Your task to perform on an android device: toggle airplane mode Image 0: 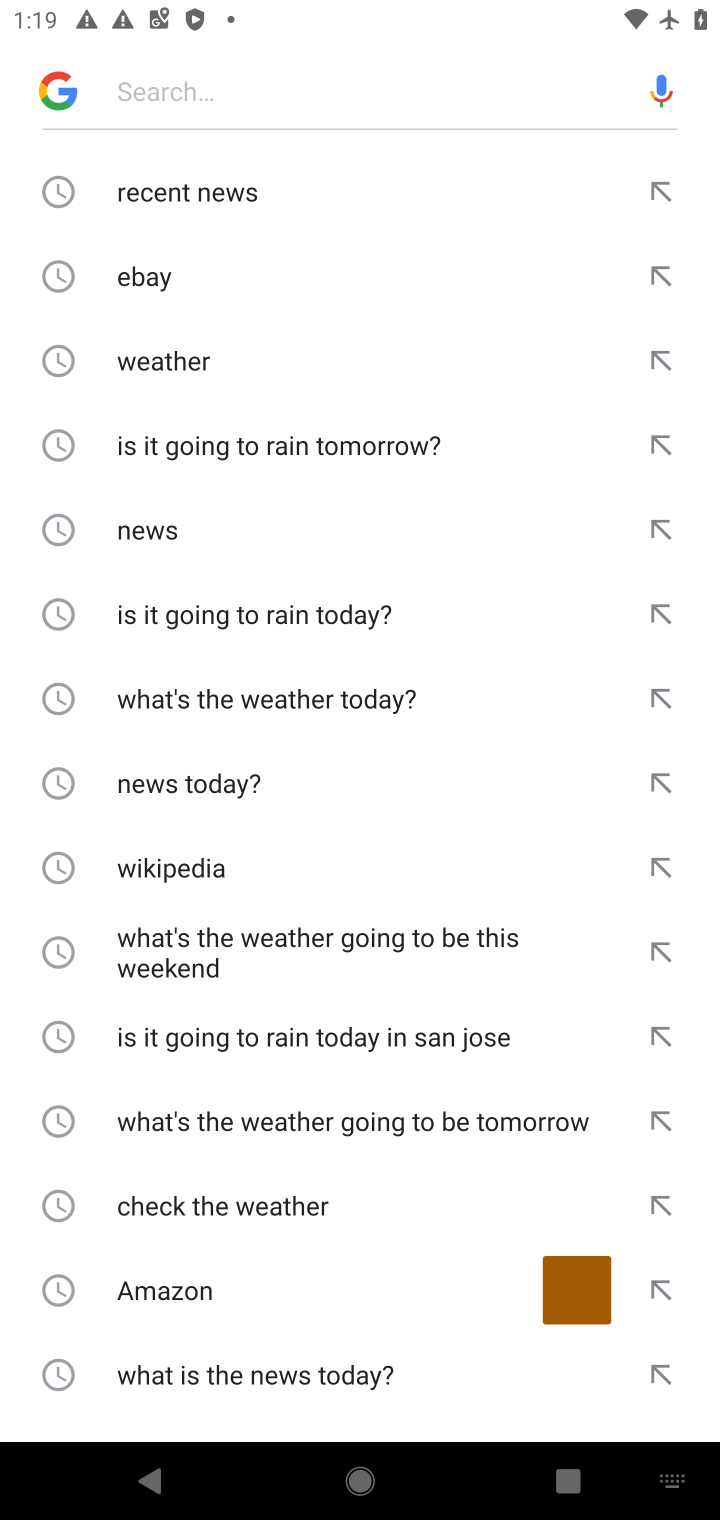
Step 0: press home button
Your task to perform on an android device: toggle airplane mode Image 1: 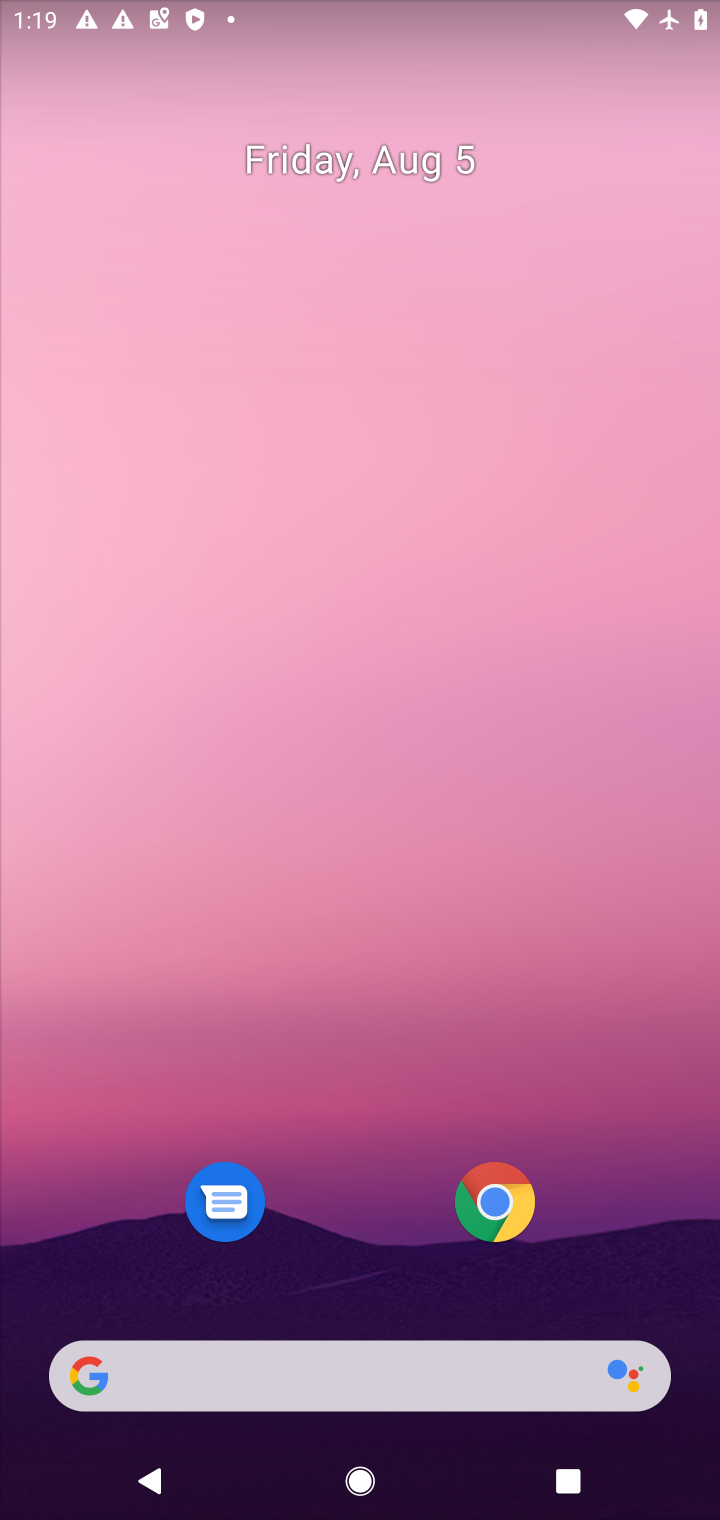
Step 1: press home button
Your task to perform on an android device: toggle airplane mode Image 2: 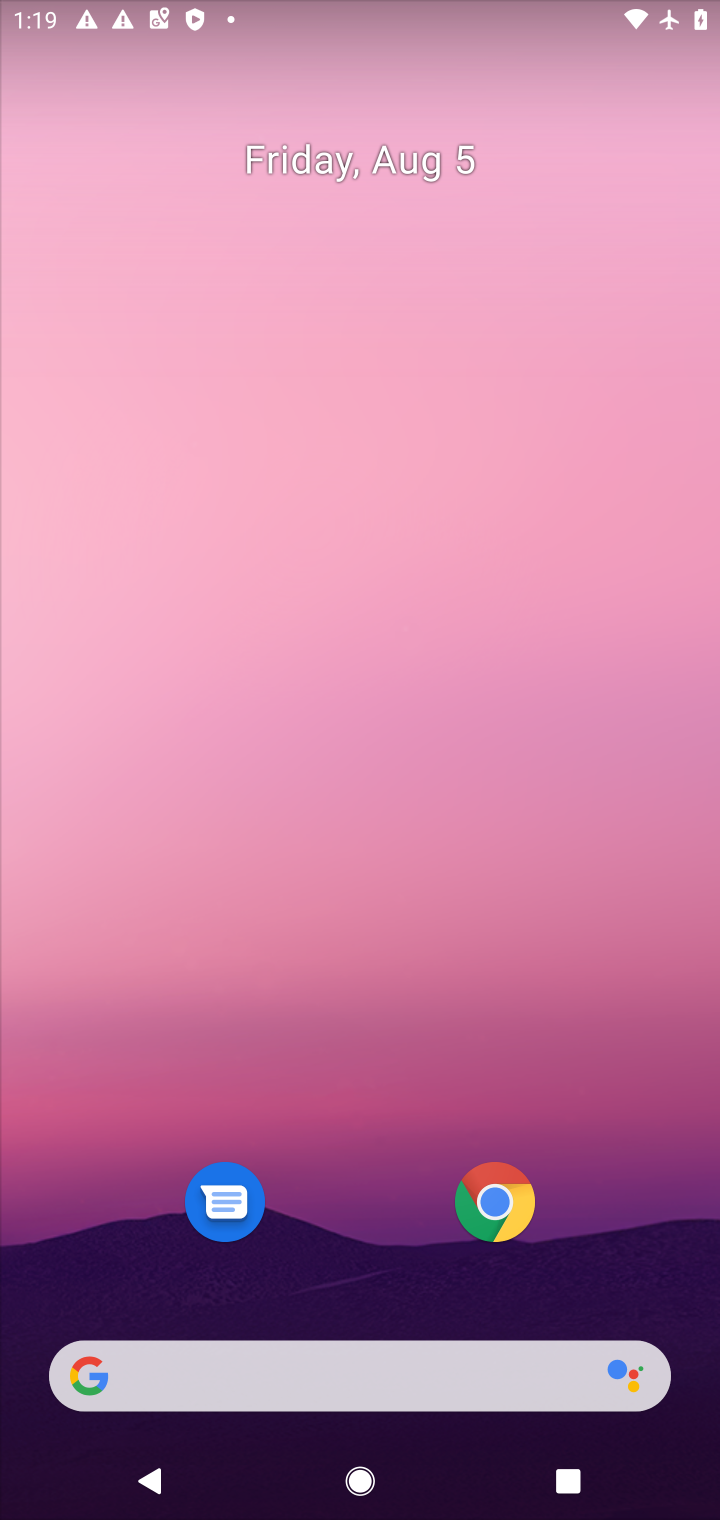
Step 2: drag from (560, 636) to (548, 276)
Your task to perform on an android device: toggle airplane mode Image 3: 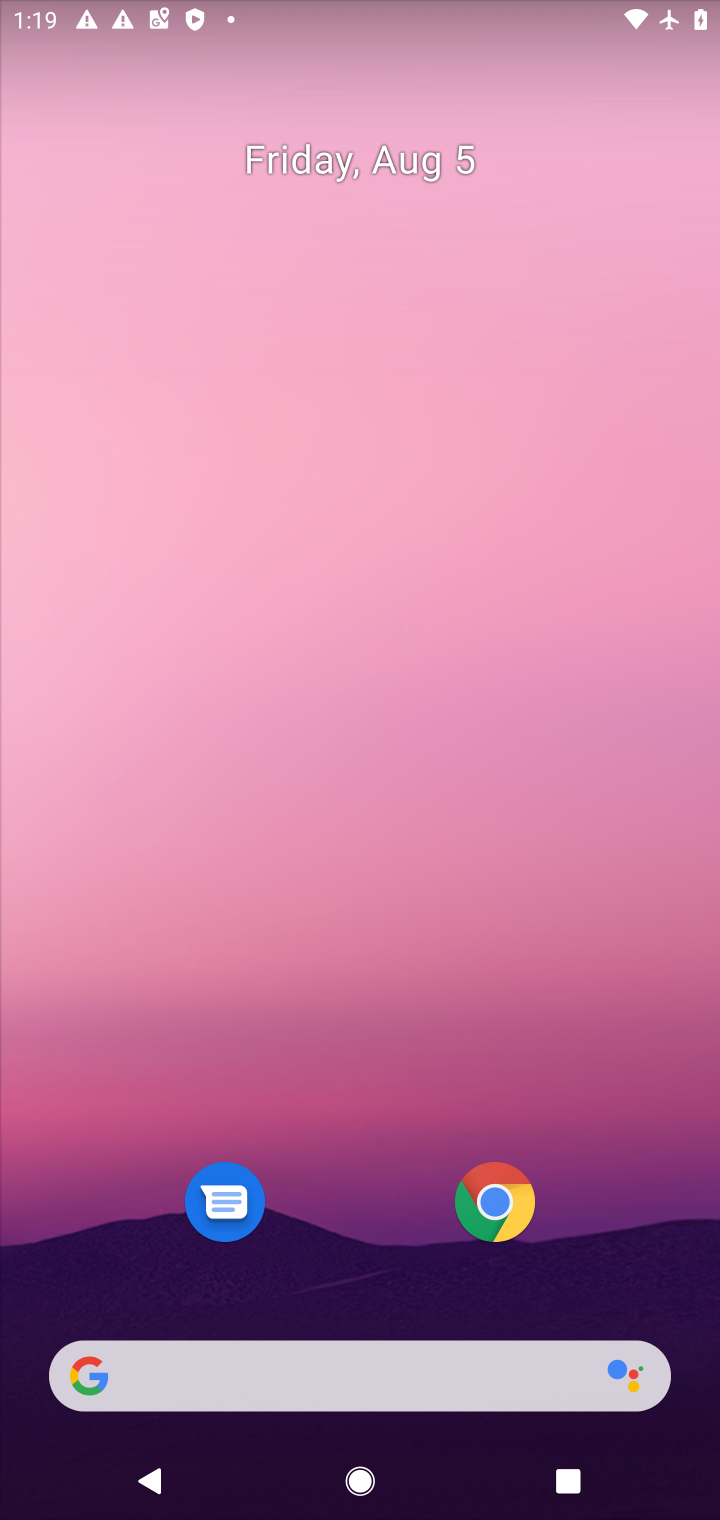
Step 3: drag from (367, 1205) to (537, 99)
Your task to perform on an android device: toggle airplane mode Image 4: 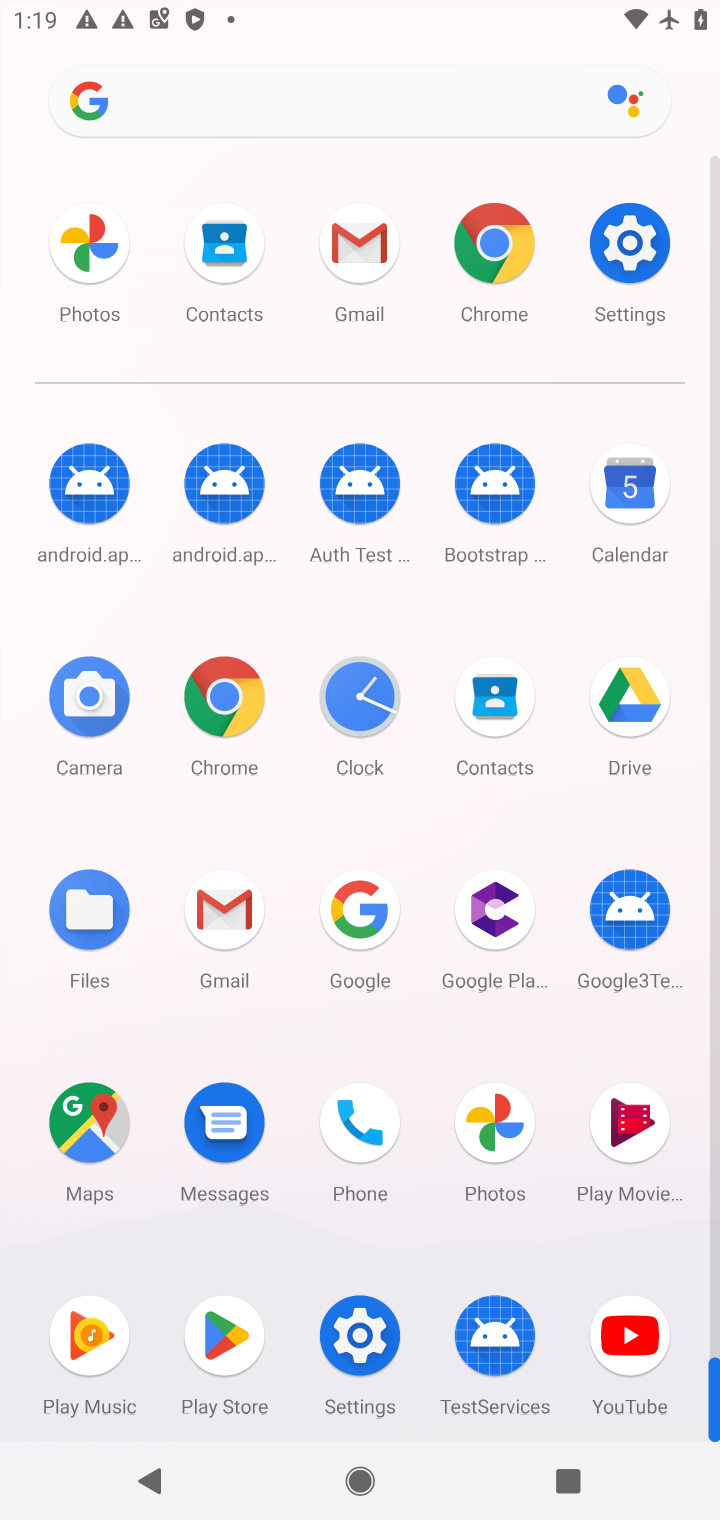
Step 4: click (609, 244)
Your task to perform on an android device: toggle airplane mode Image 5: 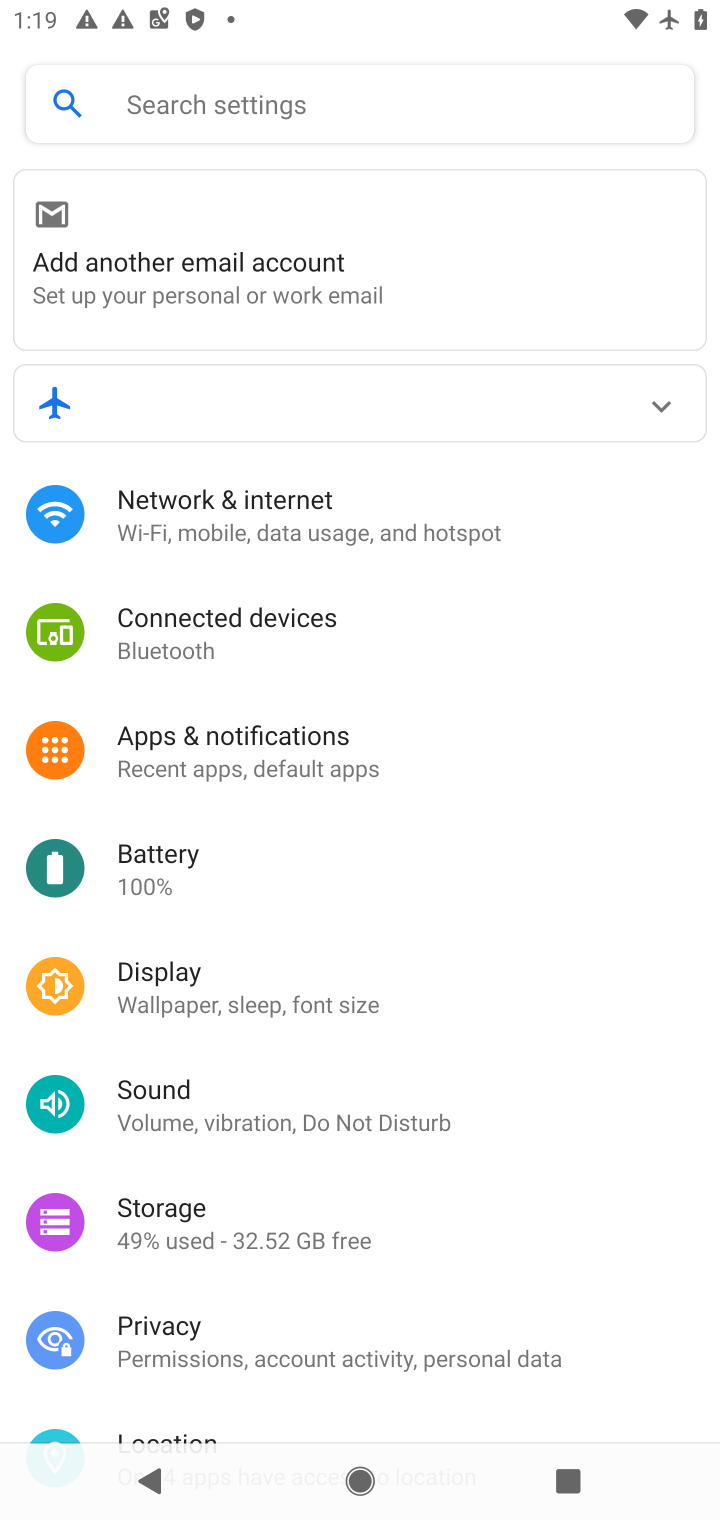
Step 5: click (270, 526)
Your task to perform on an android device: toggle airplane mode Image 6: 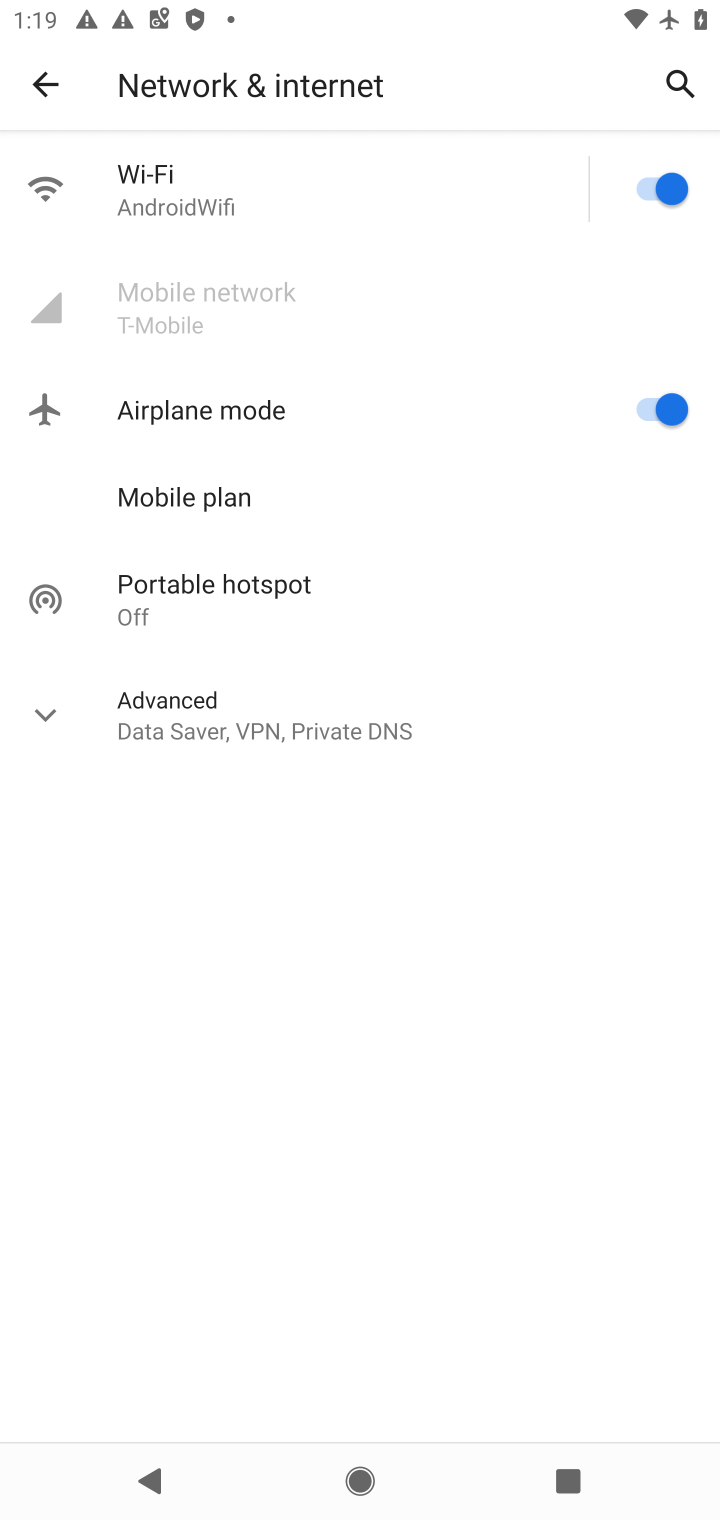
Step 6: click (672, 405)
Your task to perform on an android device: toggle airplane mode Image 7: 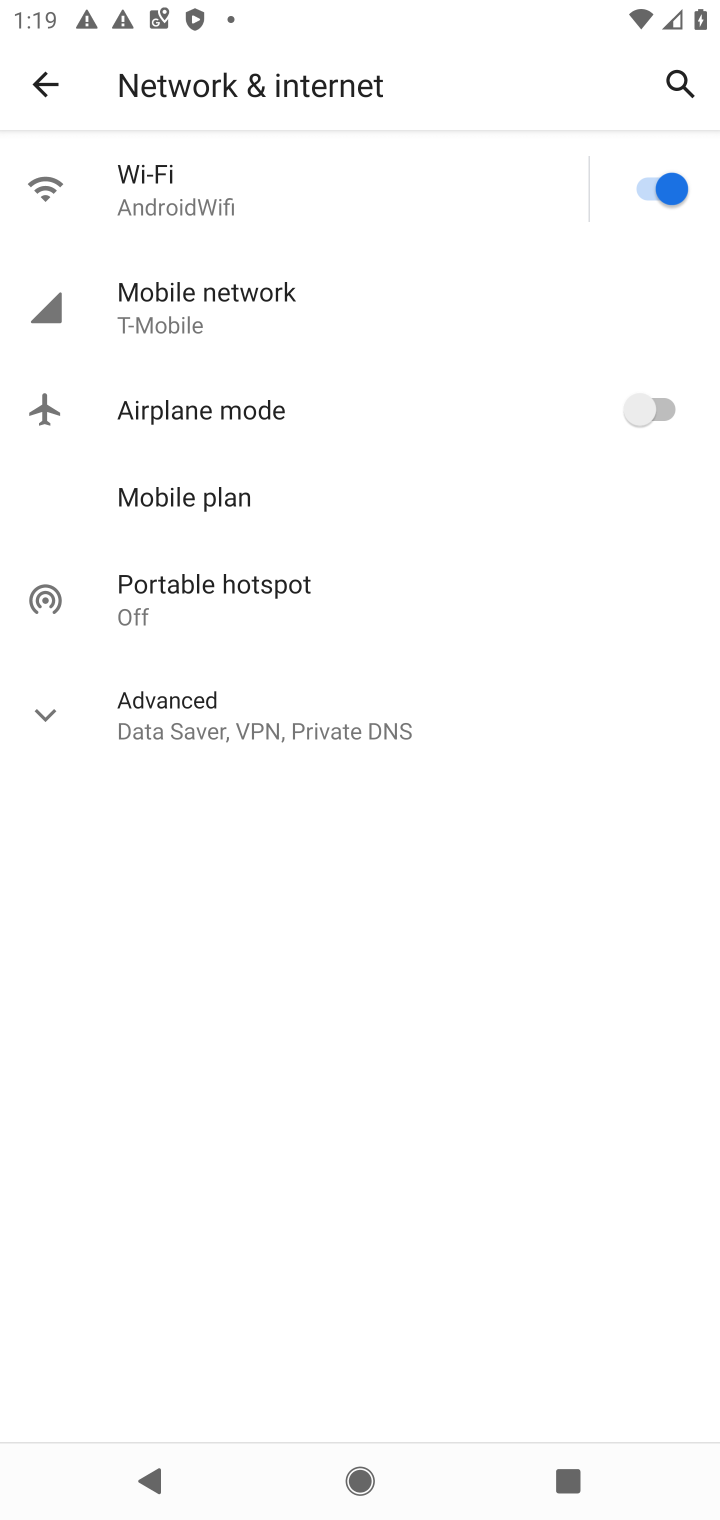
Step 7: task complete